Your task to perform on an android device: open app "Microsoft Authenticator" (install if not already installed) and go to login screen Image 0: 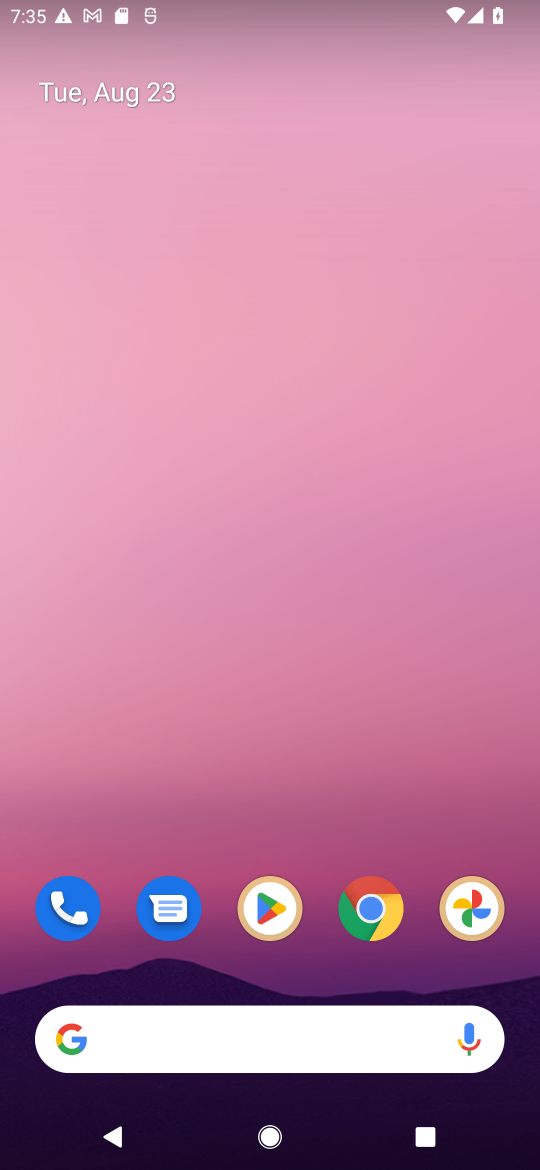
Step 0: drag from (188, 636) to (173, 260)
Your task to perform on an android device: open app "Microsoft Authenticator" (install if not already installed) and go to login screen Image 1: 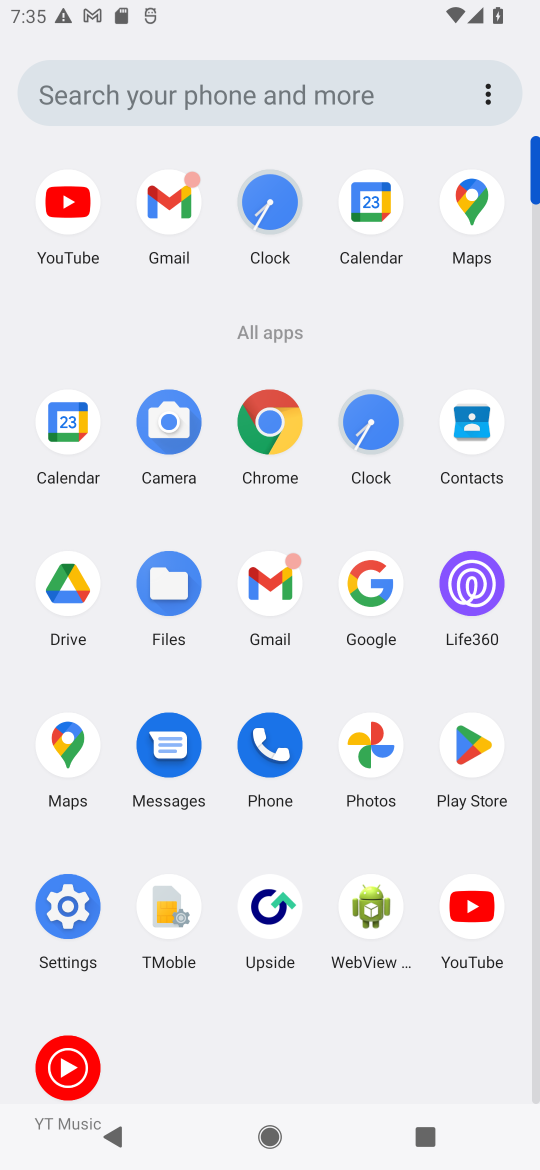
Step 1: click (471, 743)
Your task to perform on an android device: open app "Microsoft Authenticator" (install if not already installed) and go to login screen Image 2: 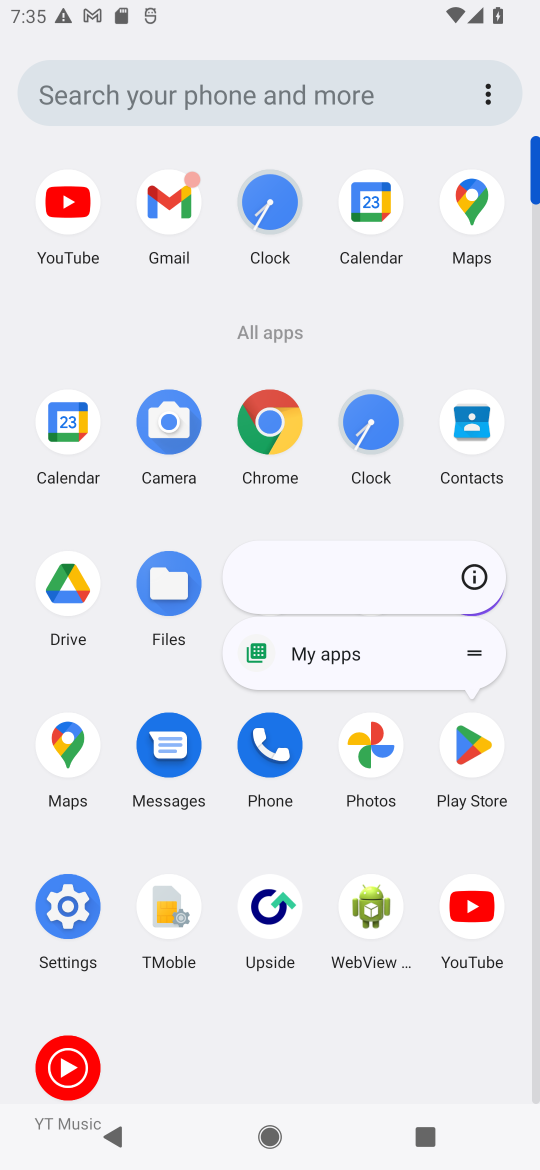
Step 2: click (455, 763)
Your task to perform on an android device: open app "Microsoft Authenticator" (install if not already installed) and go to login screen Image 3: 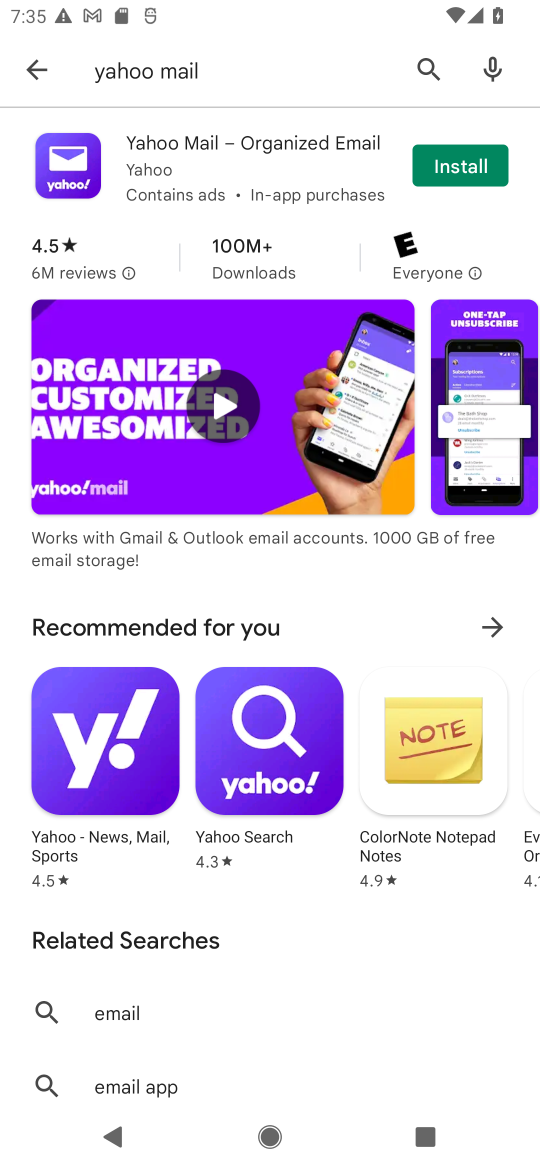
Step 3: click (424, 61)
Your task to perform on an android device: open app "Microsoft Authenticator" (install if not already installed) and go to login screen Image 4: 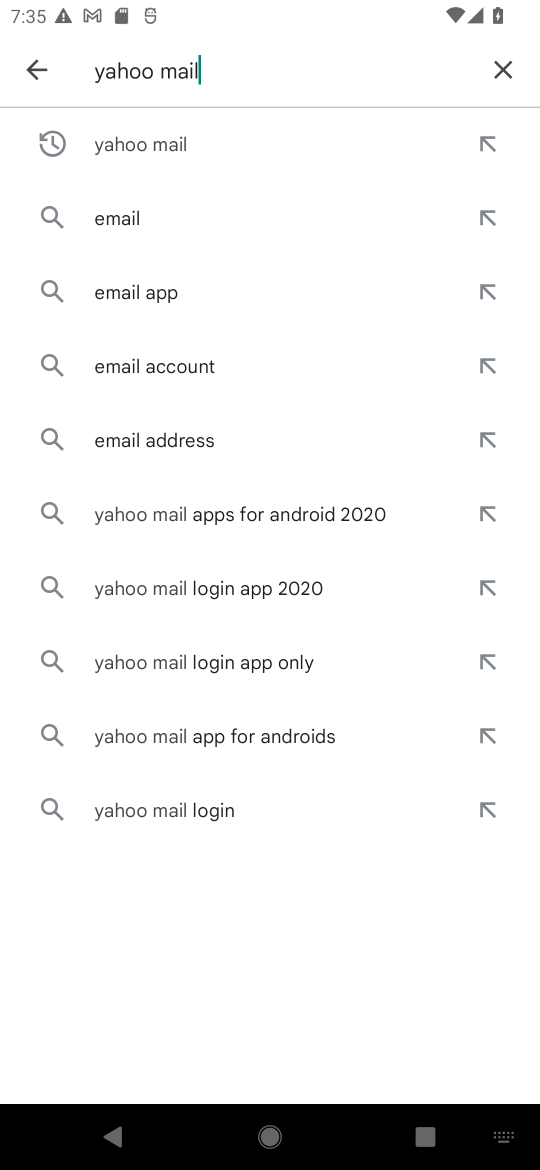
Step 4: click (503, 71)
Your task to perform on an android device: open app "Microsoft Authenticator" (install if not already installed) and go to login screen Image 5: 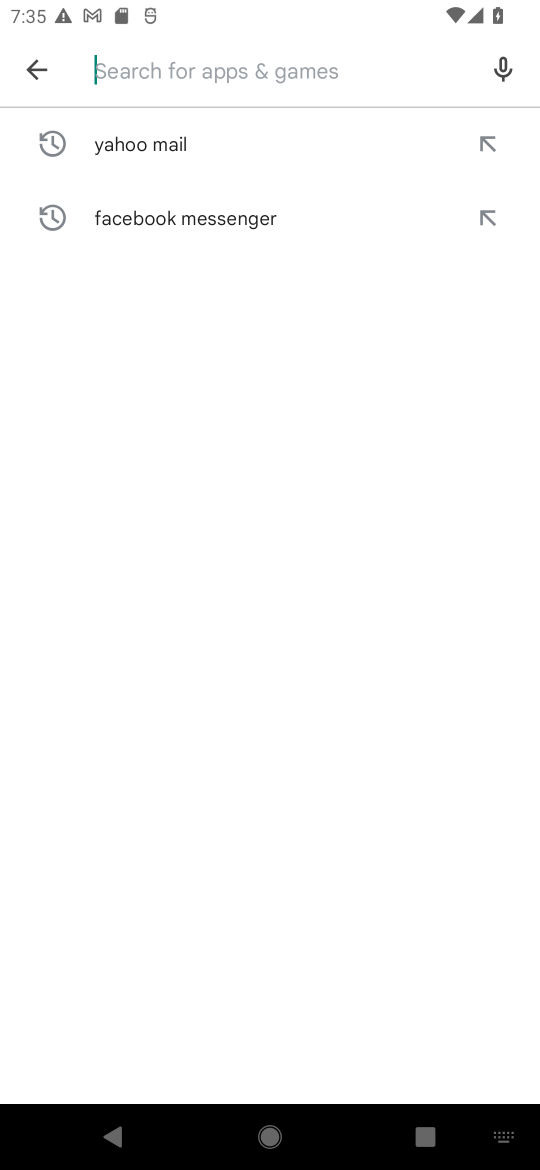
Step 5: type "Microsoft Authenticator"
Your task to perform on an android device: open app "Microsoft Authenticator" (install if not already installed) and go to login screen Image 6: 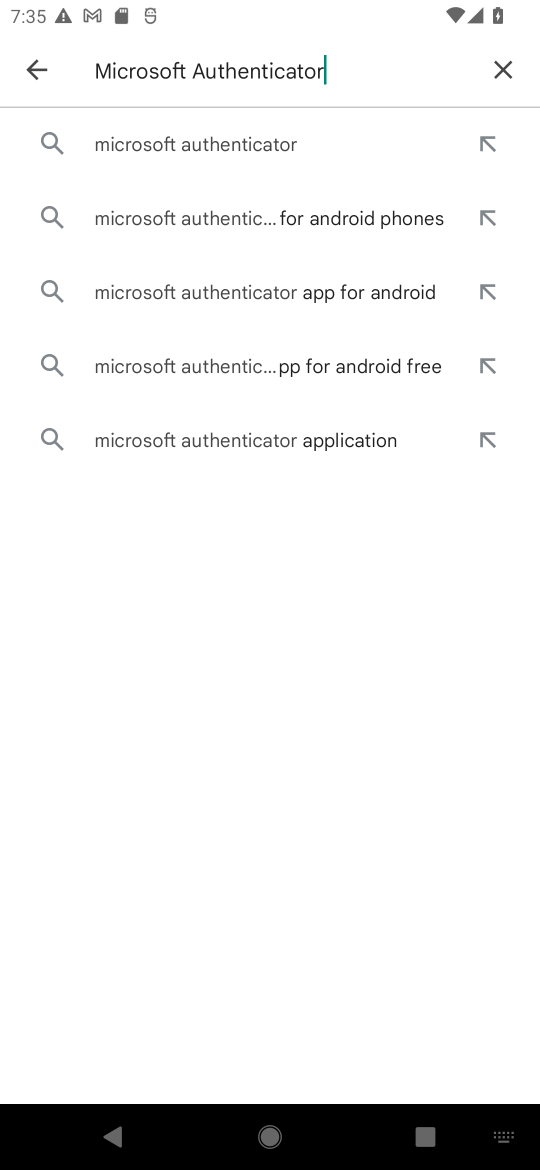
Step 6: click (248, 131)
Your task to perform on an android device: open app "Microsoft Authenticator" (install if not already installed) and go to login screen Image 7: 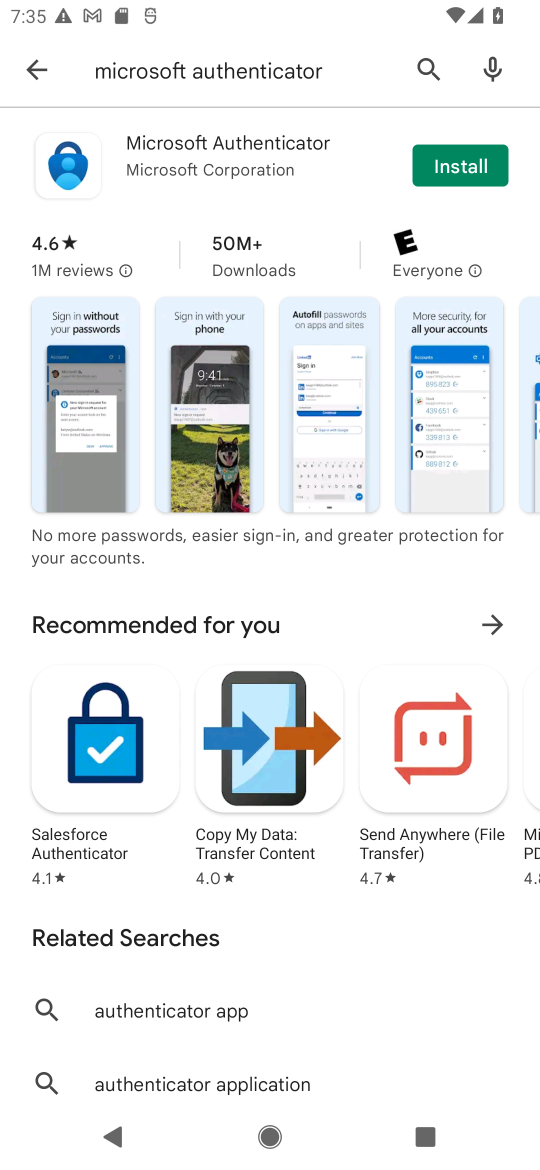
Step 7: click (484, 172)
Your task to perform on an android device: open app "Microsoft Authenticator" (install if not already installed) and go to login screen Image 8: 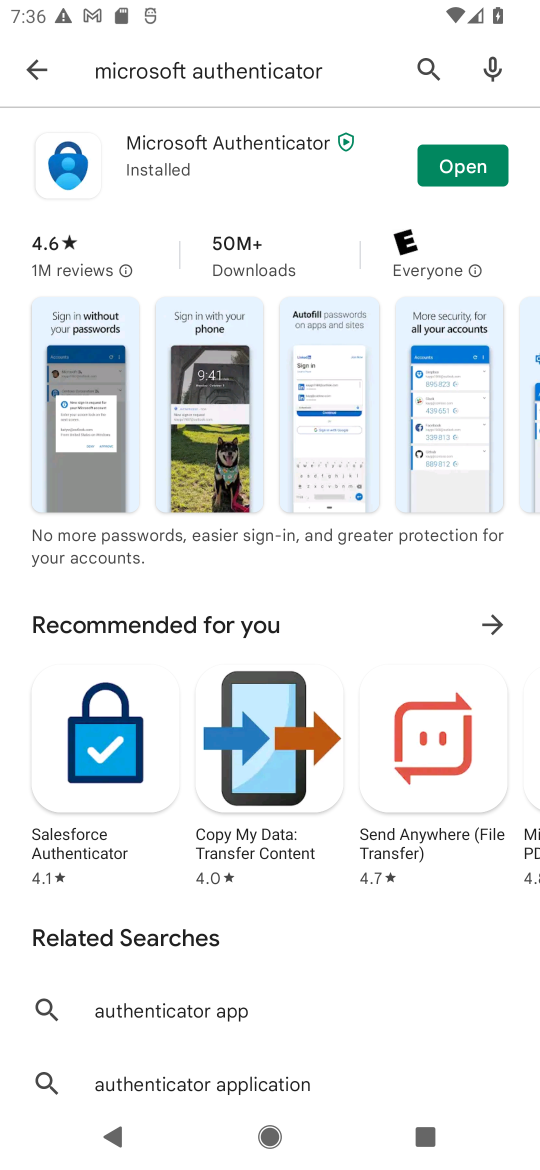
Step 8: click (466, 159)
Your task to perform on an android device: open app "Microsoft Authenticator" (install if not already installed) and go to login screen Image 9: 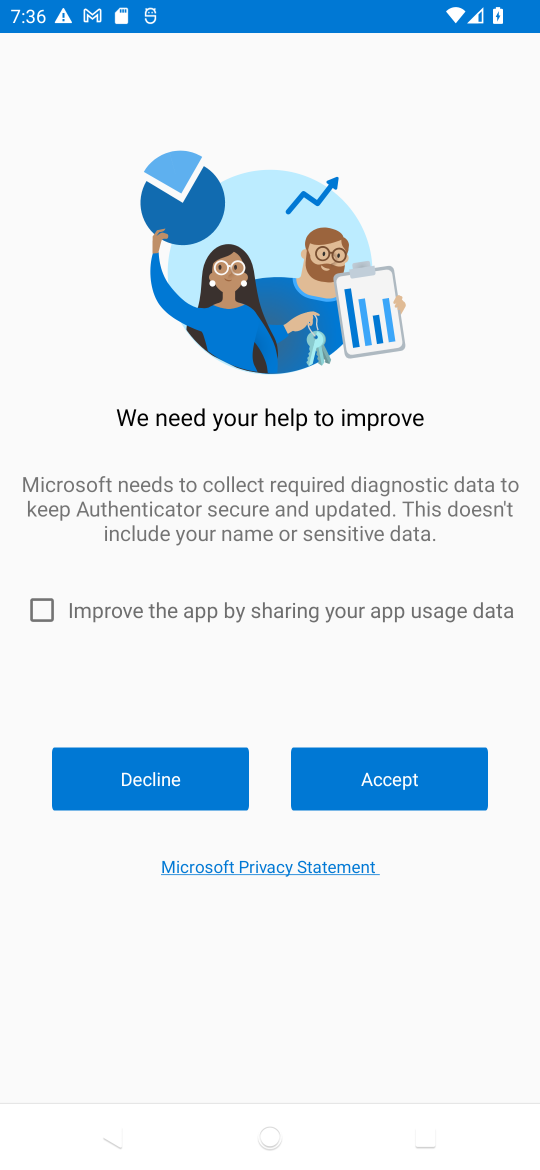
Step 9: task complete